Your task to perform on an android device: open chrome privacy settings Image 0: 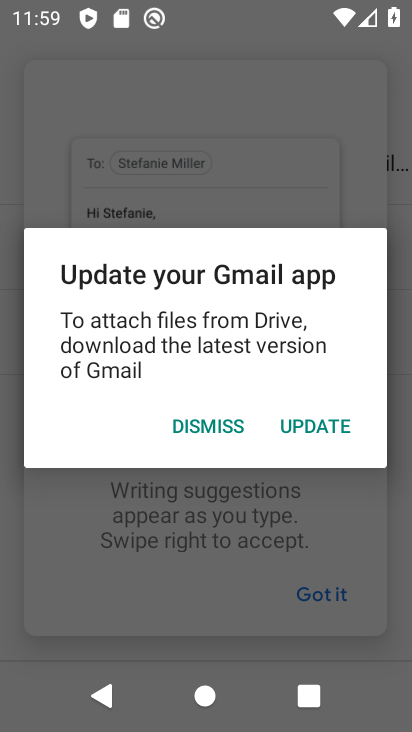
Step 0: press home button
Your task to perform on an android device: open chrome privacy settings Image 1: 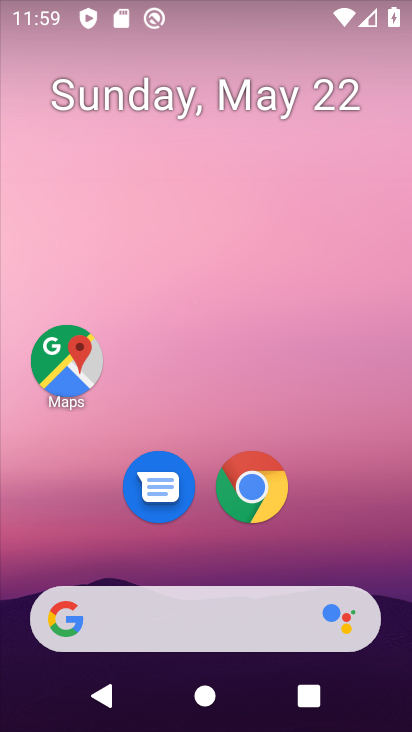
Step 1: click (247, 491)
Your task to perform on an android device: open chrome privacy settings Image 2: 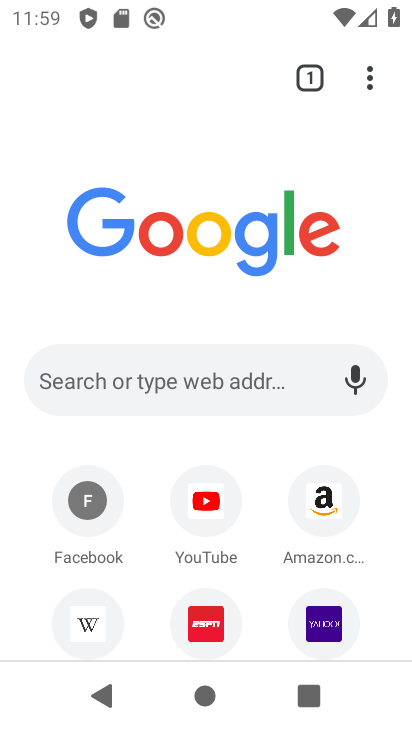
Step 2: click (368, 71)
Your task to perform on an android device: open chrome privacy settings Image 3: 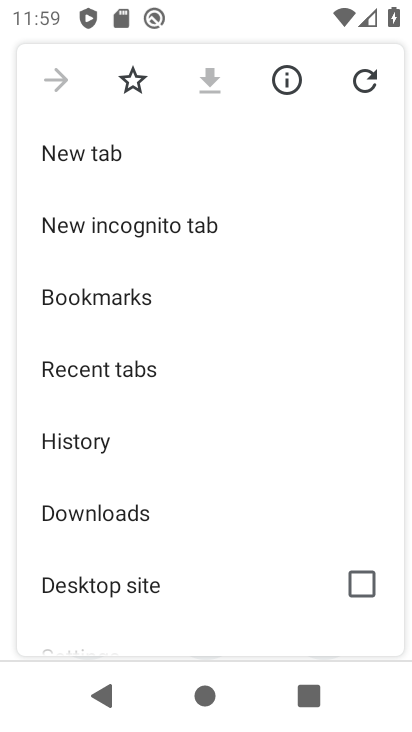
Step 3: drag from (210, 470) to (250, 126)
Your task to perform on an android device: open chrome privacy settings Image 4: 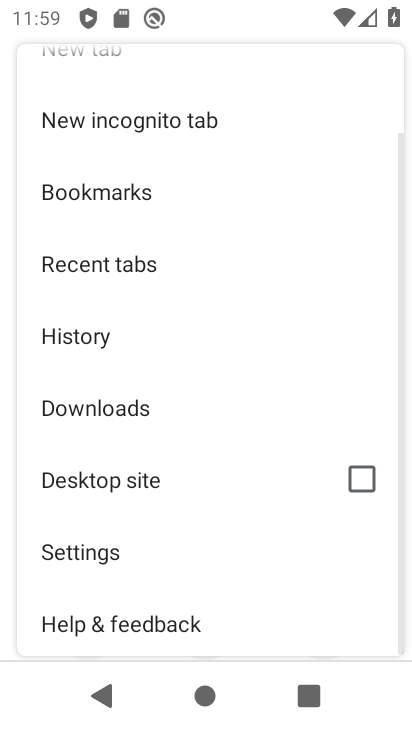
Step 4: click (130, 551)
Your task to perform on an android device: open chrome privacy settings Image 5: 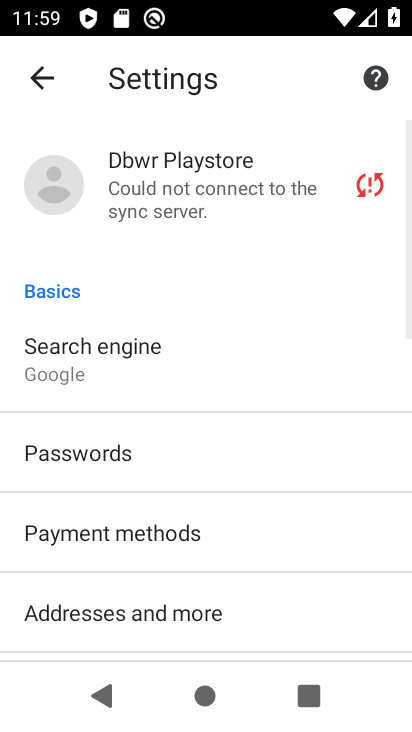
Step 5: drag from (219, 469) to (257, 187)
Your task to perform on an android device: open chrome privacy settings Image 6: 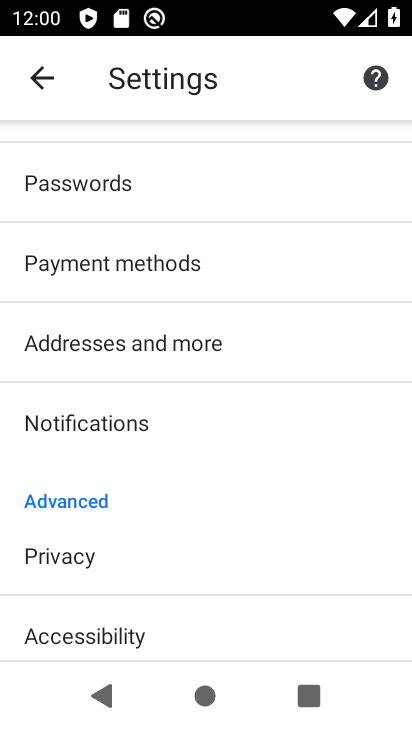
Step 6: click (157, 565)
Your task to perform on an android device: open chrome privacy settings Image 7: 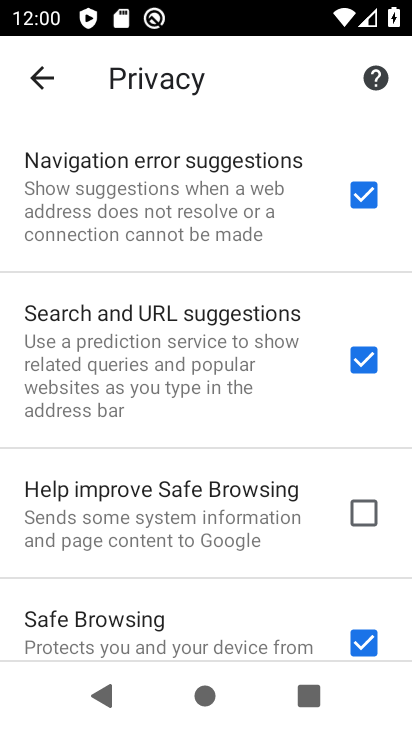
Step 7: task complete